Your task to perform on an android device: install app "Google Find My Device" Image 0: 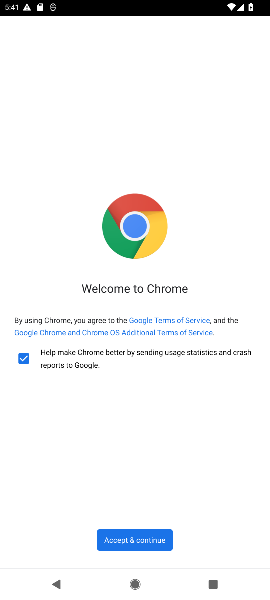
Step 0: press home button
Your task to perform on an android device: install app "Google Find My Device" Image 1: 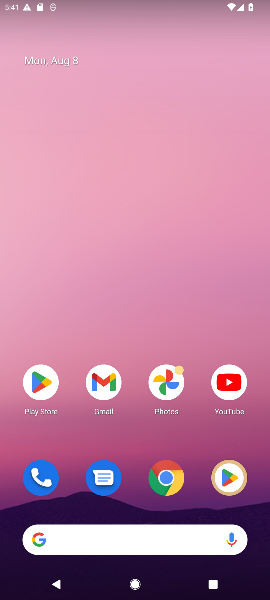
Step 1: click (43, 376)
Your task to perform on an android device: install app "Google Find My Device" Image 2: 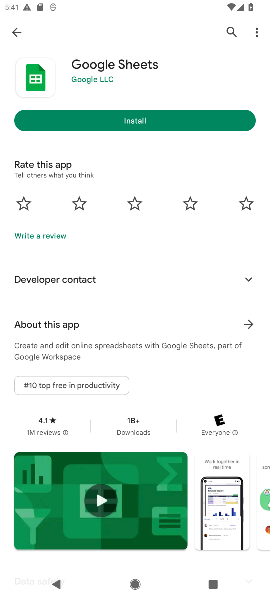
Step 2: click (18, 27)
Your task to perform on an android device: install app "Google Find My Device" Image 3: 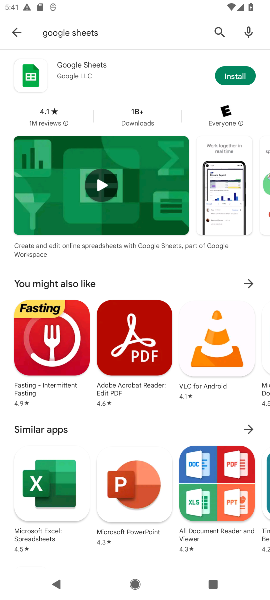
Step 3: click (217, 26)
Your task to perform on an android device: install app "Google Find My Device" Image 4: 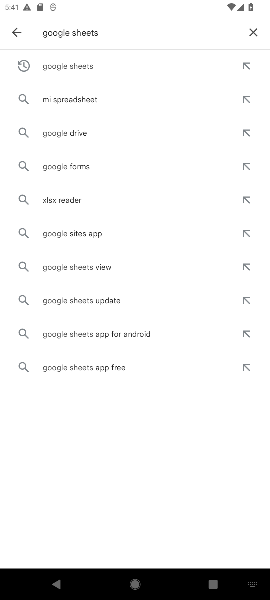
Step 4: click (256, 28)
Your task to perform on an android device: install app "Google Find My Device" Image 5: 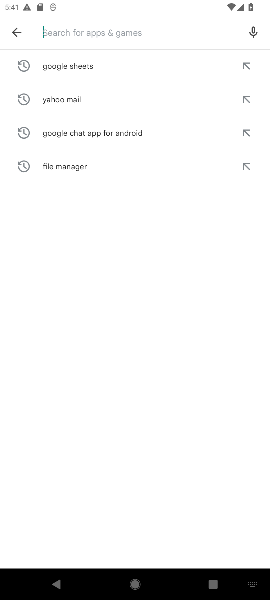
Step 5: click (154, 27)
Your task to perform on an android device: install app "Google Find My Device" Image 6: 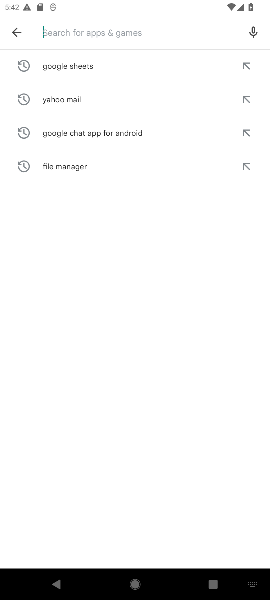
Step 6: type "google find my device"
Your task to perform on an android device: install app "Google Find My Device" Image 7: 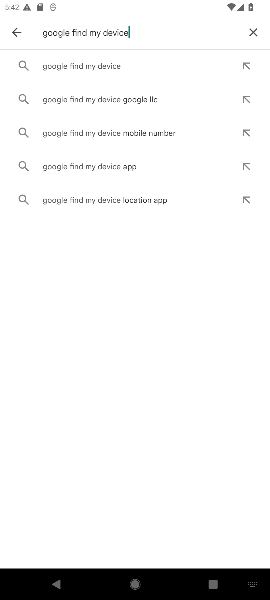
Step 7: click (96, 63)
Your task to perform on an android device: install app "Google Find My Device" Image 8: 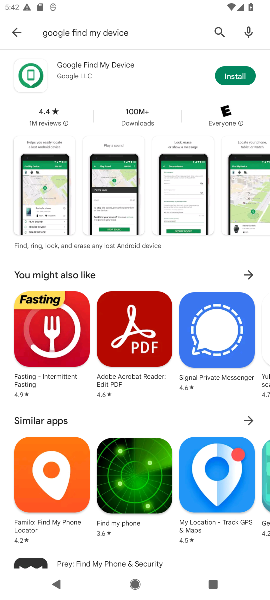
Step 8: click (237, 74)
Your task to perform on an android device: install app "Google Find My Device" Image 9: 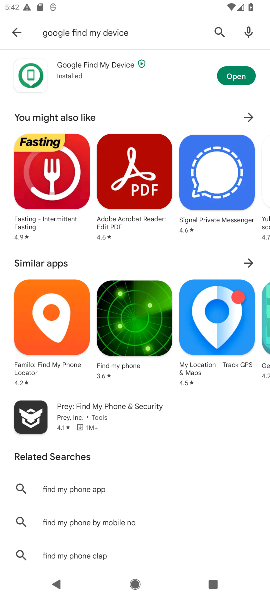
Step 9: click (249, 74)
Your task to perform on an android device: install app "Google Find My Device" Image 10: 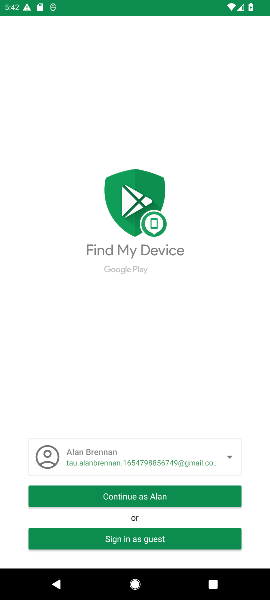
Step 10: task complete